Your task to perform on an android device: Clear all items from cart on ebay.com. Image 0: 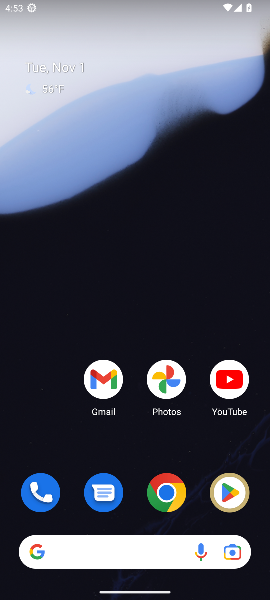
Step 0: click (167, 495)
Your task to perform on an android device: Clear all items from cart on ebay.com. Image 1: 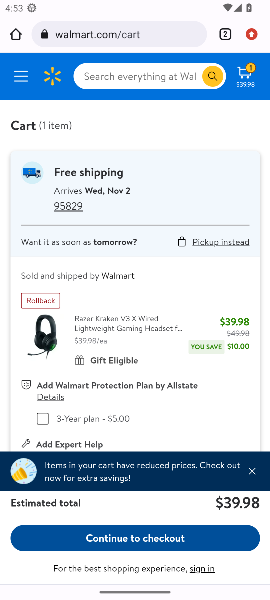
Step 1: click (91, 31)
Your task to perform on an android device: Clear all items from cart on ebay.com. Image 2: 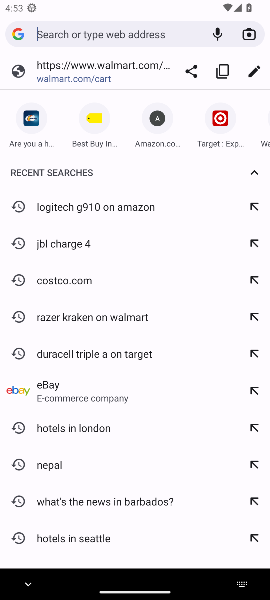
Step 2: type "ebay.com"
Your task to perform on an android device: Clear all items from cart on ebay.com. Image 3: 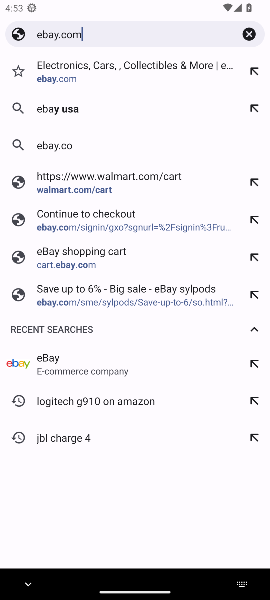
Step 3: type ""
Your task to perform on an android device: Clear all items from cart on ebay.com. Image 4: 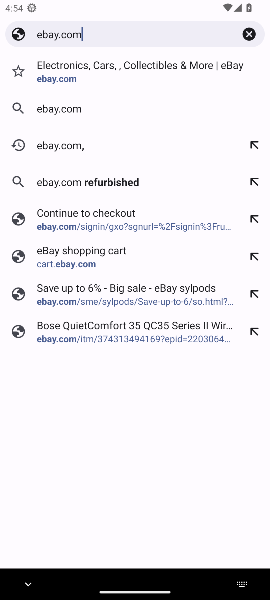
Step 4: click (123, 70)
Your task to perform on an android device: Clear all items from cart on ebay.com. Image 5: 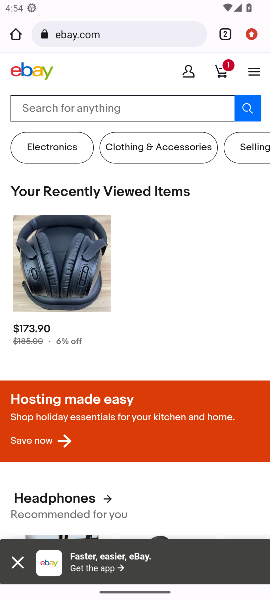
Step 5: click (225, 70)
Your task to perform on an android device: Clear all items from cart on ebay.com. Image 6: 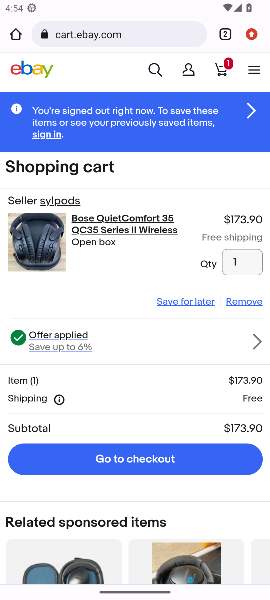
Step 6: click (256, 305)
Your task to perform on an android device: Clear all items from cart on ebay.com. Image 7: 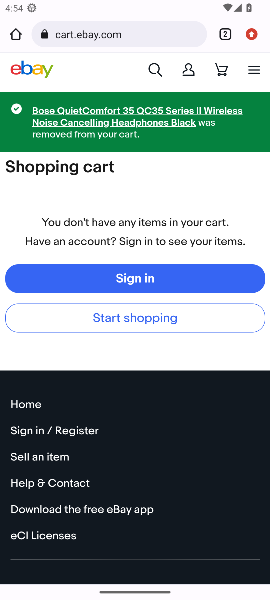
Step 7: click (219, 35)
Your task to perform on an android device: Clear all items from cart on ebay.com. Image 8: 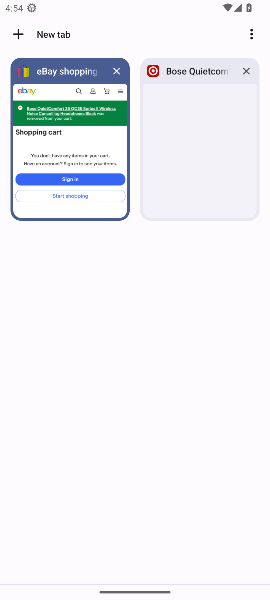
Step 8: click (249, 74)
Your task to perform on an android device: Clear all items from cart on ebay.com. Image 9: 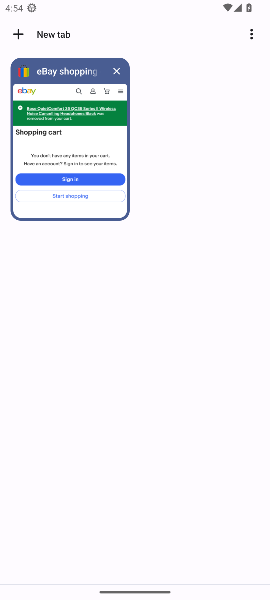
Step 9: click (111, 68)
Your task to perform on an android device: Clear all items from cart on ebay.com. Image 10: 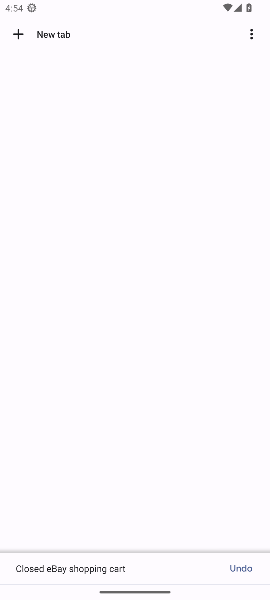
Step 10: click (23, 40)
Your task to perform on an android device: Clear all items from cart on ebay.com. Image 11: 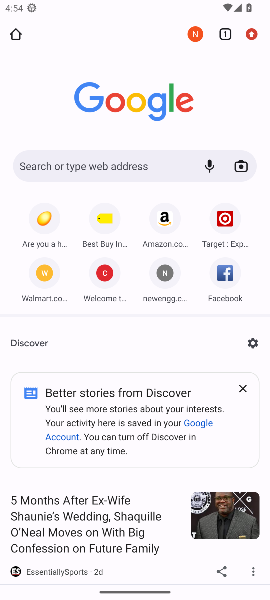
Step 11: drag from (124, 425) to (119, 518)
Your task to perform on an android device: Clear all items from cart on ebay.com. Image 12: 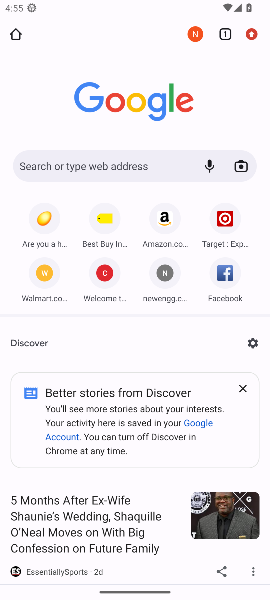
Step 12: click (102, 165)
Your task to perform on an android device: Clear all items from cart on ebay.com. Image 13: 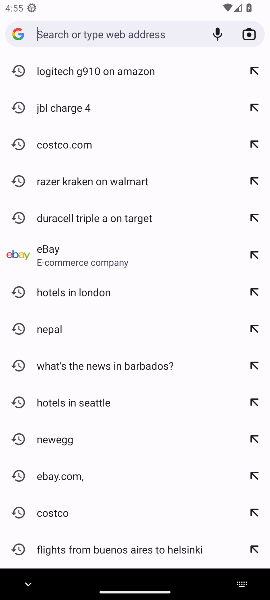
Step 13: type " ebay.com"
Your task to perform on an android device: Clear all items from cart on ebay.com. Image 14: 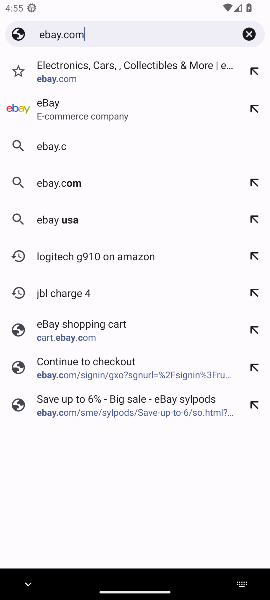
Step 14: type ""
Your task to perform on an android device: Clear all items from cart on ebay.com. Image 15: 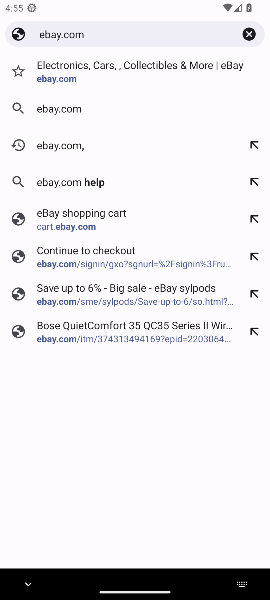
Step 15: click (175, 75)
Your task to perform on an android device: Clear all items from cart on ebay.com. Image 16: 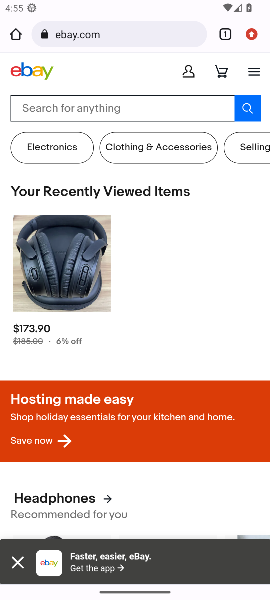
Step 16: click (212, 71)
Your task to perform on an android device: Clear all items from cart on ebay.com. Image 17: 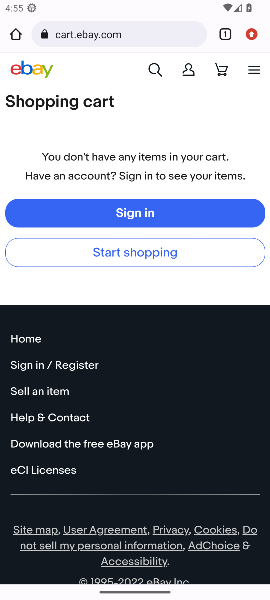
Step 17: drag from (219, 449) to (225, 260)
Your task to perform on an android device: Clear all items from cart on ebay.com. Image 18: 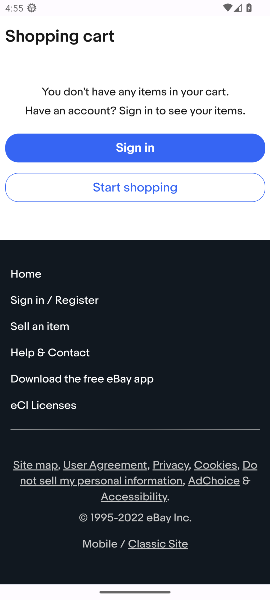
Step 18: drag from (146, 599) to (205, 250)
Your task to perform on an android device: Clear all items from cart on ebay.com. Image 19: 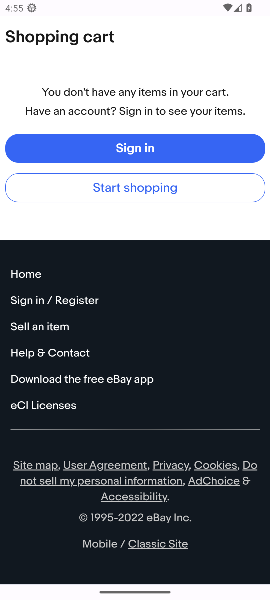
Step 19: drag from (204, 387) to (197, 192)
Your task to perform on an android device: Clear all items from cart on ebay.com. Image 20: 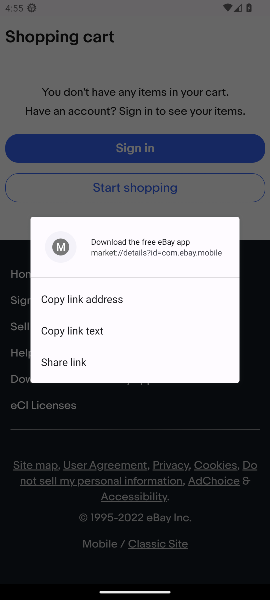
Step 20: click (257, 262)
Your task to perform on an android device: Clear all items from cart on ebay.com. Image 21: 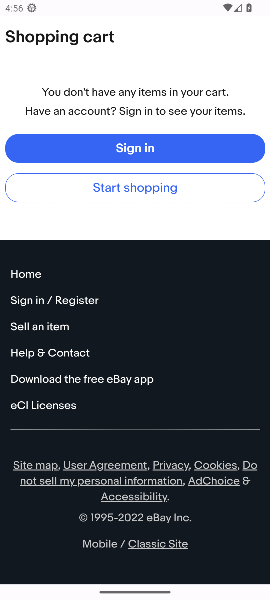
Step 21: press back button
Your task to perform on an android device: Clear all items from cart on ebay.com. Image 22: 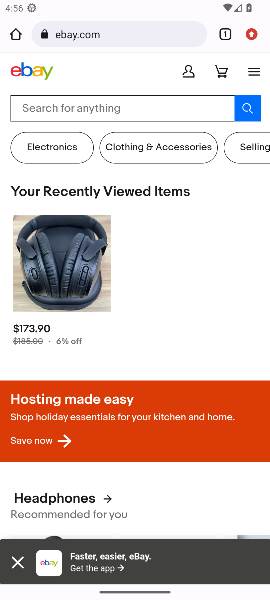
Step 22: drag from (214, 310) to (215, 200)
Your task to perform on an android device: Clear all items from cart on ebay.com. Image 23: 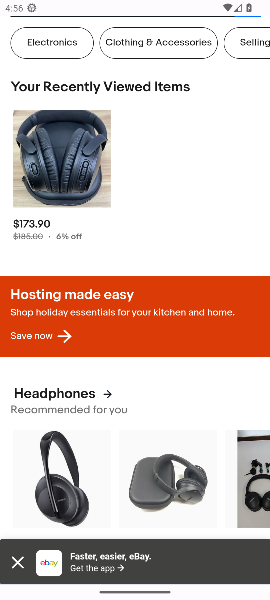
Step 23: press back button
Your task to perform on an android device: Clear all items from cart on ebay.com. Image 24: 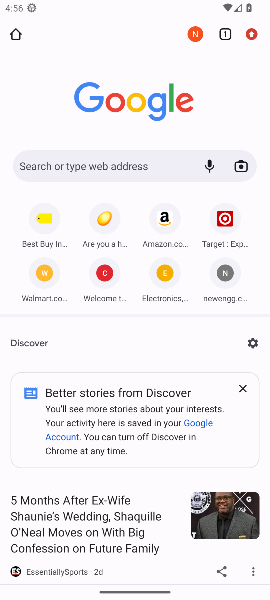
Step 24: drag from (166, 592) to (209, 372)
Your task to perform on an android device: Clear all items from cart on ebay.com. Image 25: 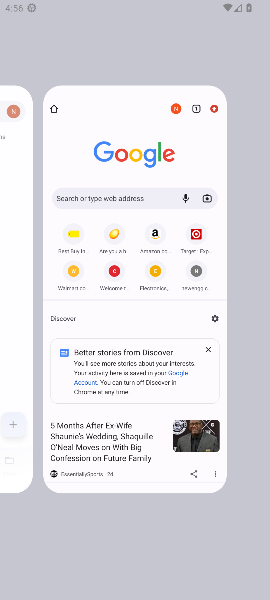
Step 25: drag from (48, 291) to (268, 298)
Your task to perform on an android device: Clear all items from cart on ebay.com. Image 26: 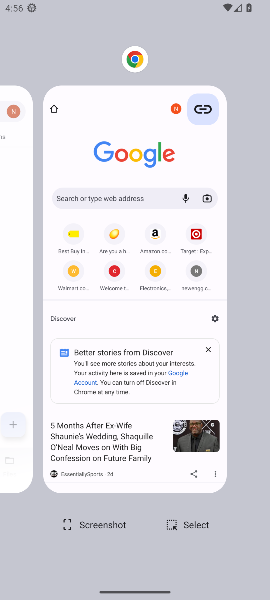
Step 26: drag from (39, 305) to (212, 288)
Your task to perform on an android device: Clear all items from cart on ebay.com. Image 27: 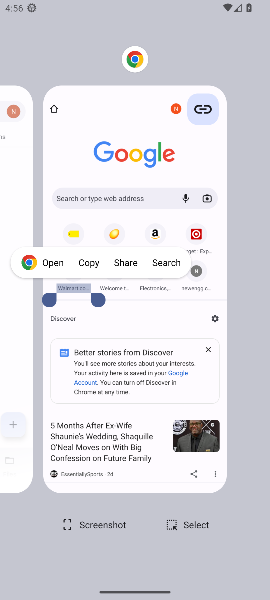
Step 27: drag from (15, 224) to (233, 227)
Your task to perform on an android device: Clear all items from cart on ebay.com. Image 28: 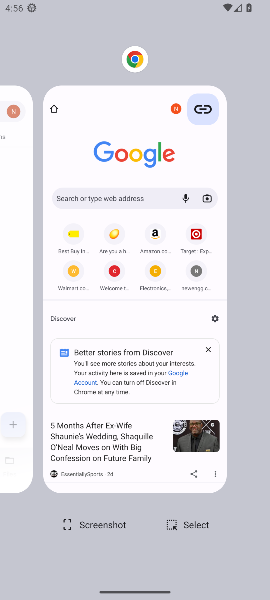
Step 28: drag from (122, 257) to (266, 255)
Your task to perform on an android device: Clear all items from cart on ebay.com. Image 29: 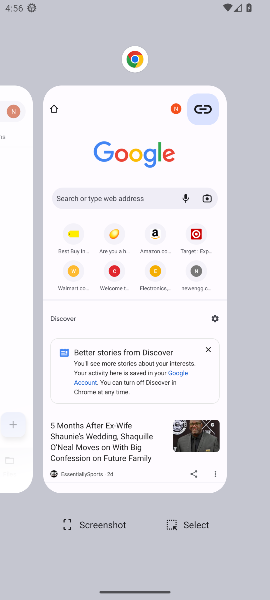
Step 29: drag from (10, 201) to (195, 189)
Your task to perform on an android device: Clear all items from cart on ebay.com. Image 30: 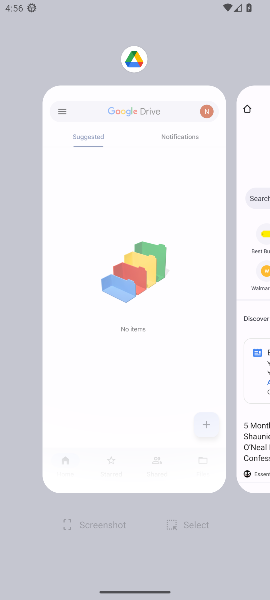
Step 30: drag from (74, 291) to (238, 295)
Your task to perform on an android device: Clear all items from cart on ebay.com. Image 31: 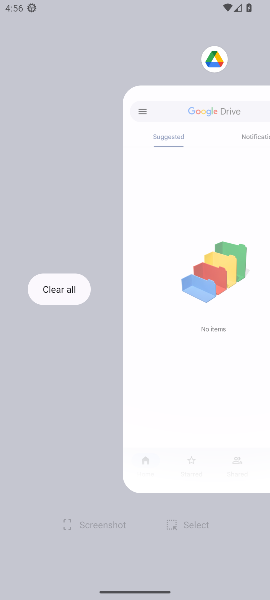
Step 31: drag from (55, 321) to (246, 326)
Your task to perform on an android device: Clear all items from cart on ebay.com. Image 32: 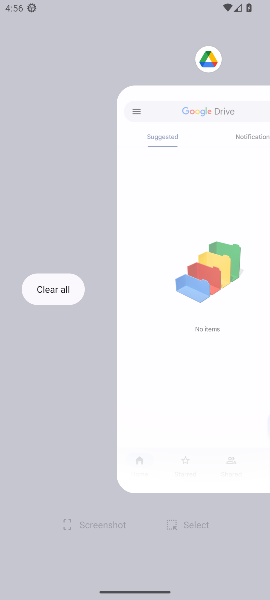
Step 32: click (81, 277)
Your task to perform on an android device: Clear all items from cart on ebay.com. Image 33: 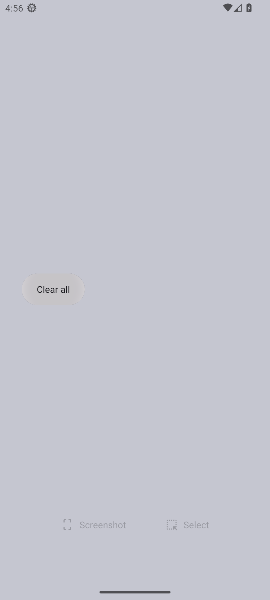
Step 33: click (56, 290)
Your task to perform on an android device: Clear all items from cart on ebay.com. Image 34: 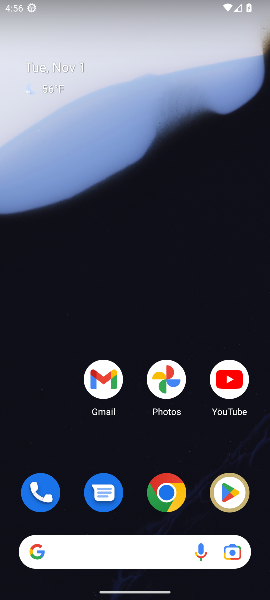
Step 34: click (155, 256)
Your task to perform on an android device: Clear all items from cart on ebay.com. Image 35: 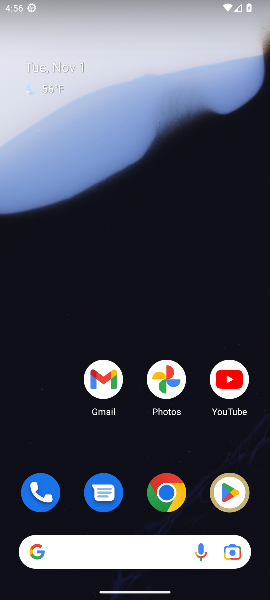
Step 35: click (155, 256)
Your task to perform on an android device: Clear all items from cart on ebay.com. Image 36: 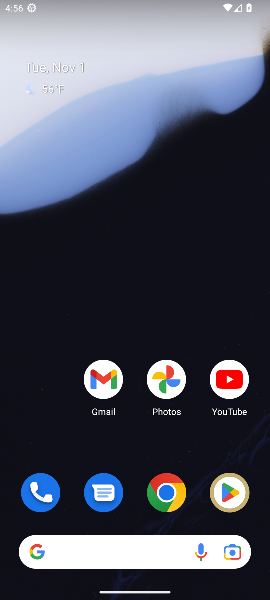
Step 36: task complete